Your task to perform on an android device: turn notification dots off Image 0: 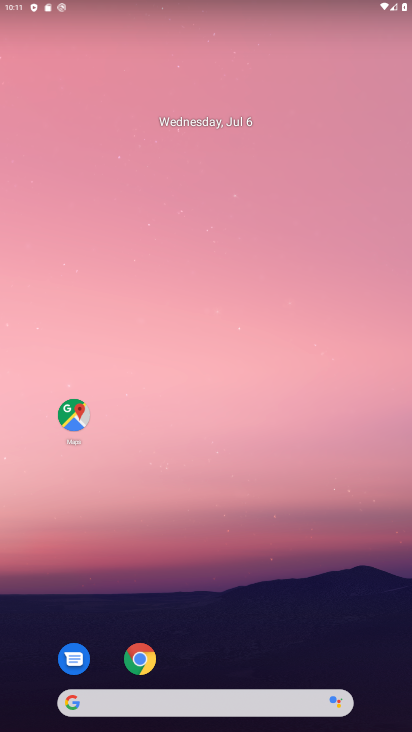
Step 0: drag from (231, 640) to (232, 90)
Your task to perform on an android device: turn notification dots off Image 1: 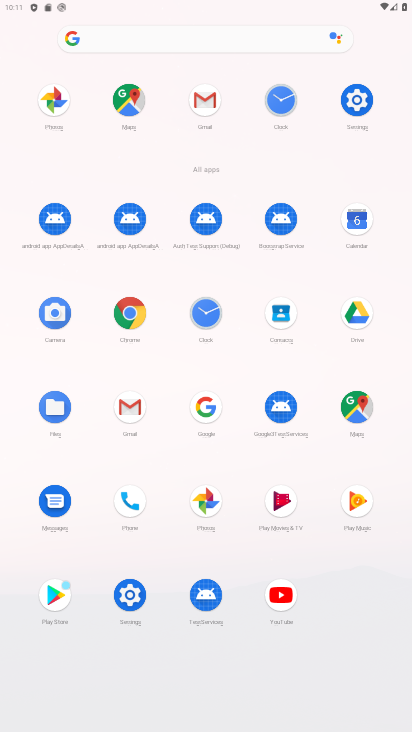
Step 1: click (360, 92)
Your task to perform on an android device: turn notification dots off Image 2: 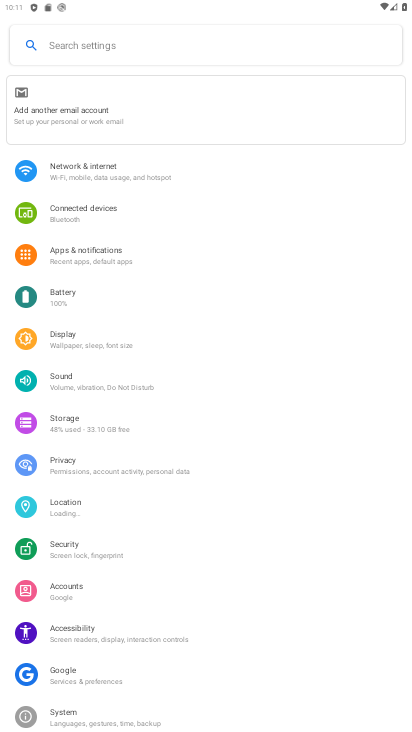
Step 2: click (111, 242)
Your task to perform on an android device: turn notification dots off Image 3: 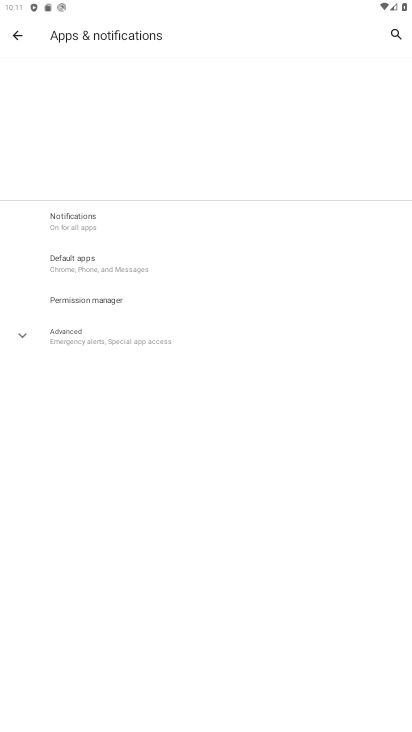
Step 3: click (95, 256)
Your task to perform on an android device: turn notification dots off Image 4: 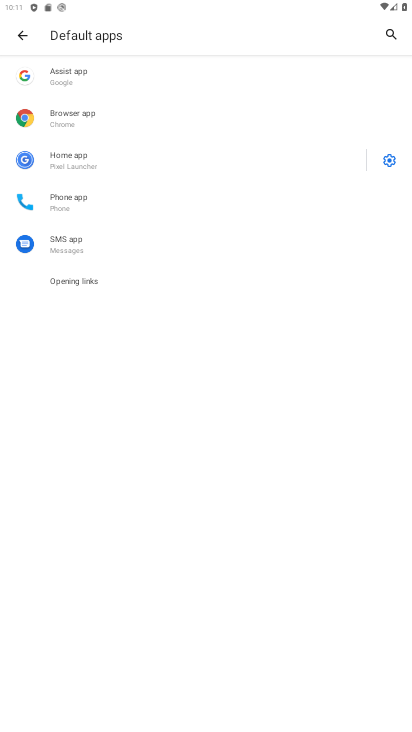
Step 4: click (17, 37)
Your task to perform on an android device: turn notification dots off Image 5: 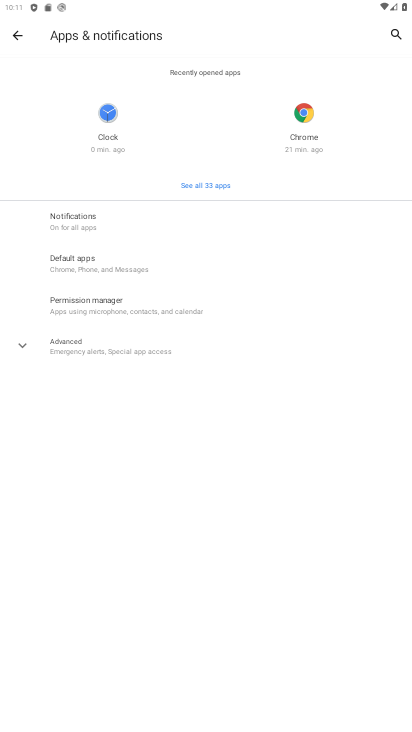
Step 5: click (84, 214)
Your task to perform on an android device: turn notification dots off Image 6: 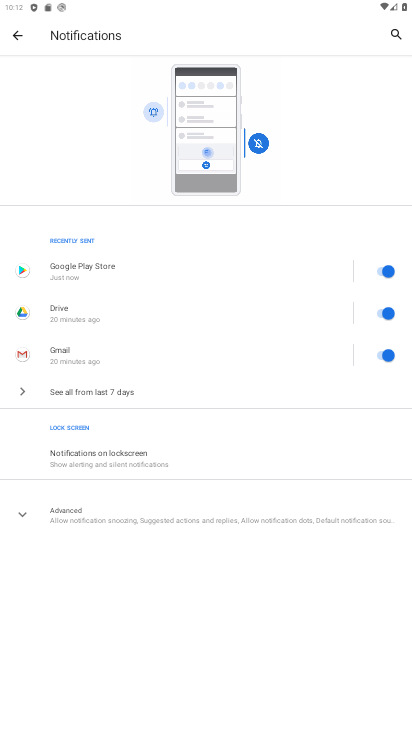
Step 6: click (134, 515)
Your task to perform on an android device: turn notification dots off Image 7: 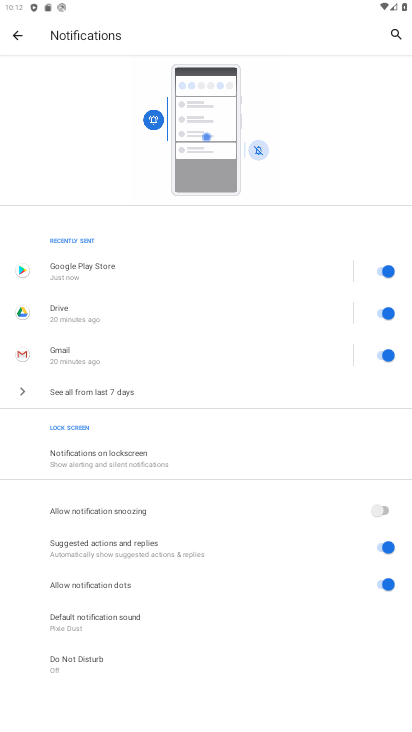
Step 7: click (391, 580)
Your task to perform on an android device: turn notification dots off Image 8: 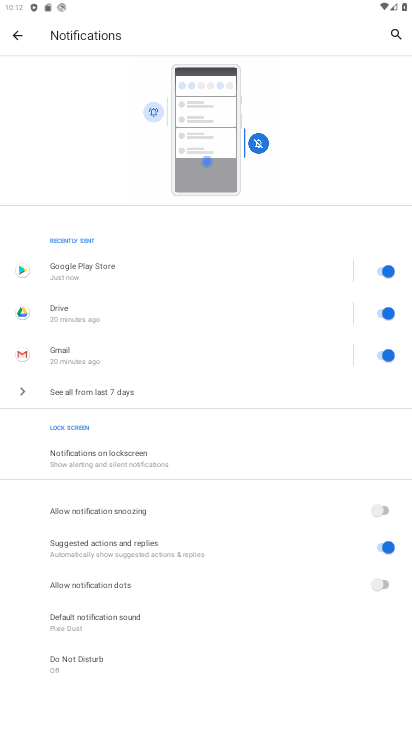
Step 8: task complete